Your task to perform on an android device: turn off smart reply in the gmail app Image 0: 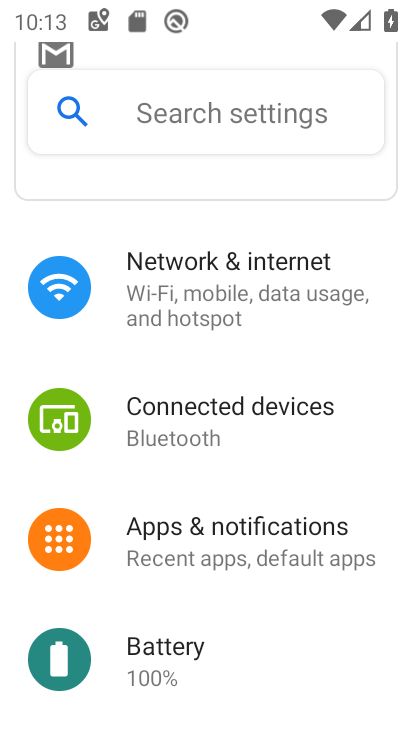
Step 0: press home button
Your task to perform on an android device: turn off smart reply in the gmail app Image 1: 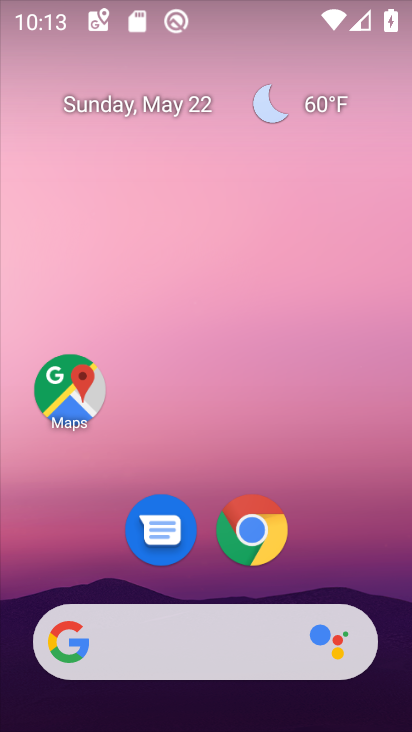
Step 1: drag from (399, 709) to (341, 189)
Your task to perform on an android device: turn off smart reply in the gmail app Image 2: 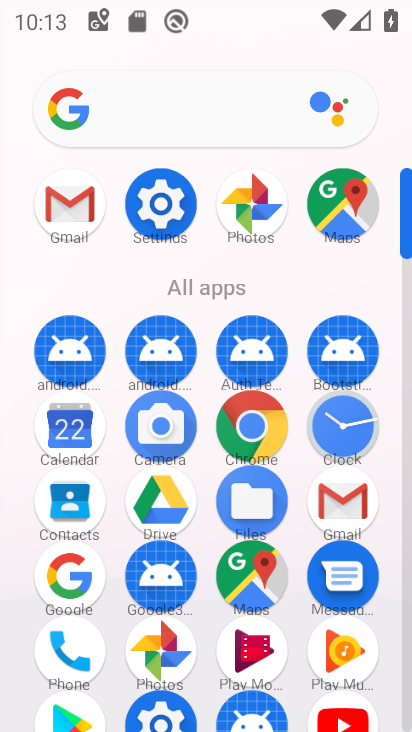
Step 2: click (346, 502)
Your task to perform on an android device: turn off smart reply in the gmail app Image 3: 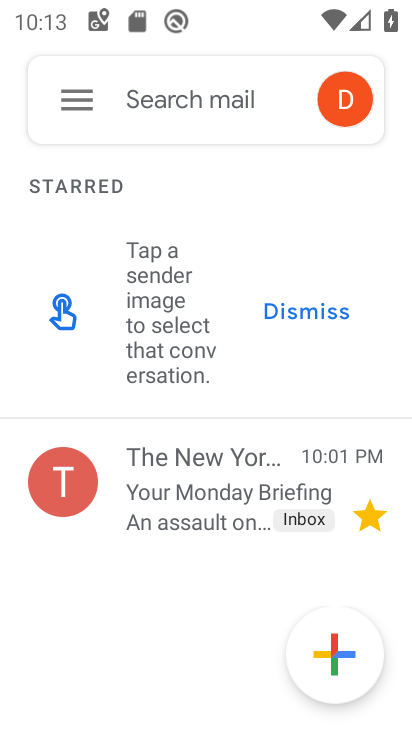
Step 3: click (77, 94)
Your task to perform on an android device: turn off smart reply in the gmail app Image 4: 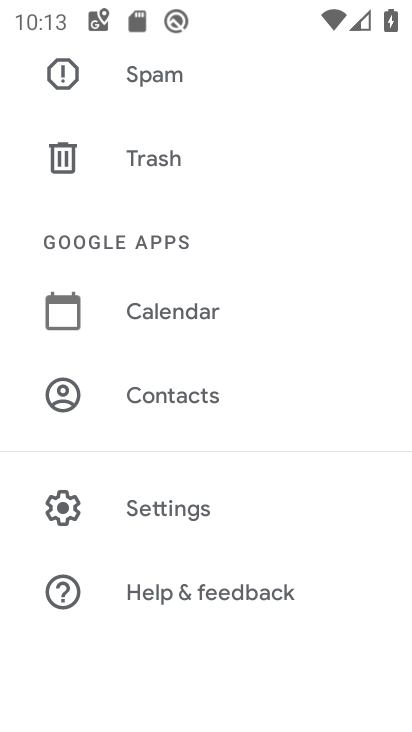
Step 4: drag from (353, 695) to (349, 328)
Your task to perform on an android device: turn off smart reply in the gmail app Image 5: 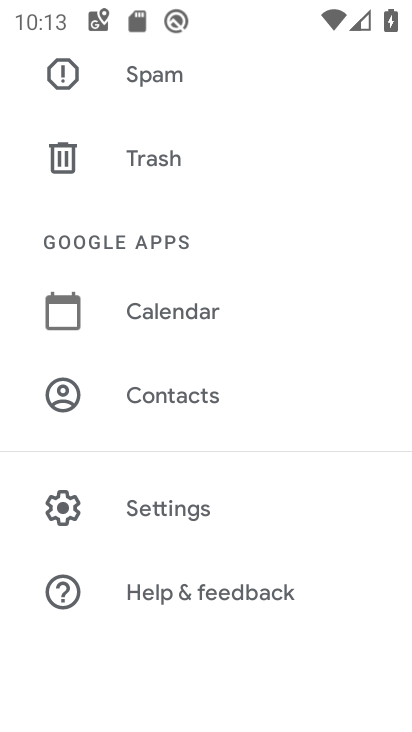
Step 5: click (127, 502)
Your task to perform on an android device: turn off smart reply in the gmail app Image 6: 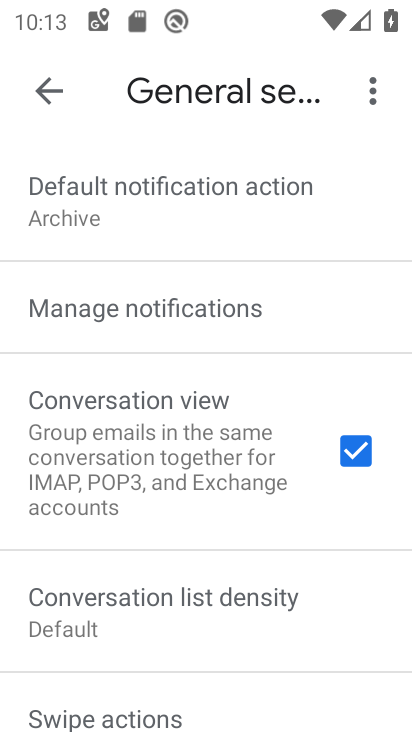
Step 6: click (43, 87)
Your task to perform on an android device: turn off smart reply in the gmail app Image 7: 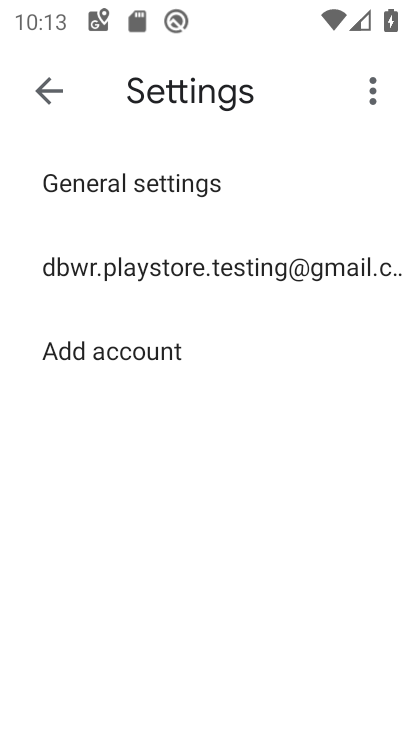
Step 7: click (139, 266)
Your task to perform on an android device: turn off smart reply in the gmail app Image 8: 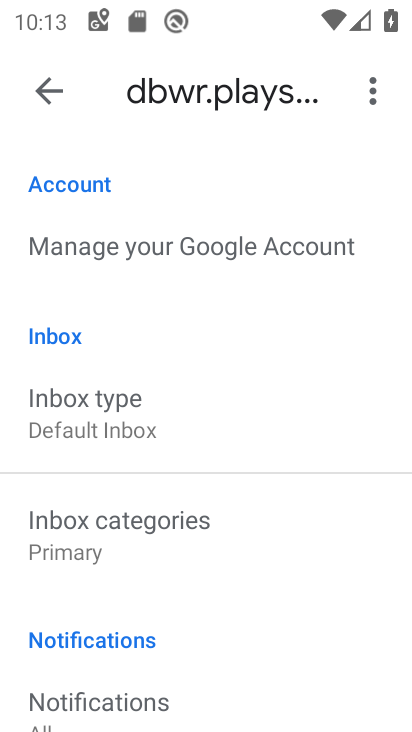
Step 8: drag from (306, 697) to (286, 333)
Your task to perform on an android device: turn off smart reply in the gmail app Image 9: 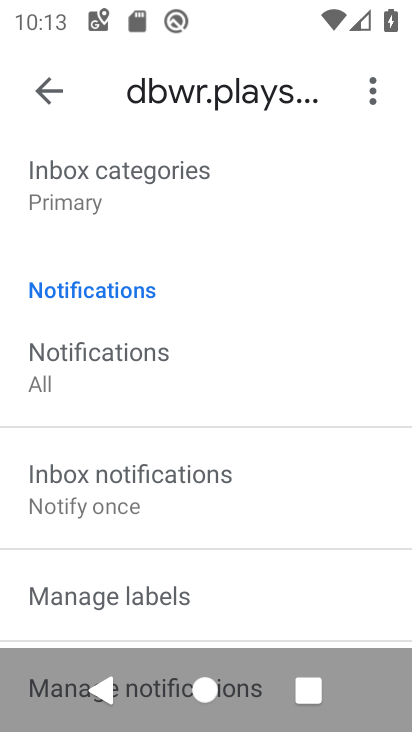
Step 9: drag from (283, 635) to (269, 292)
Your task to perform on an android device: turn off smart reply in the gmail app Image 10: 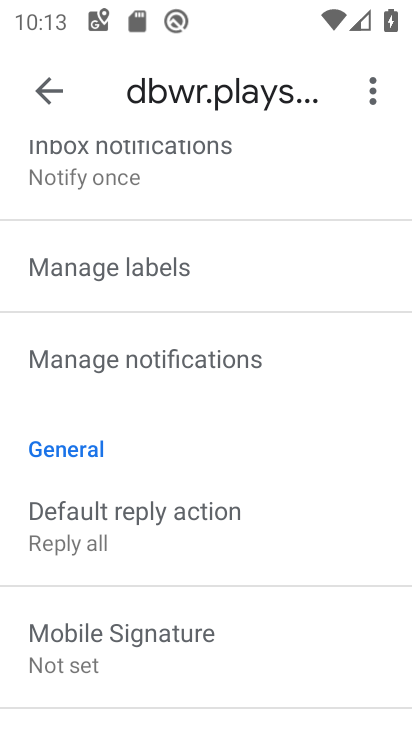
Step 10: drag from (309, 618) to (283, 283)
Your task to perform on an android device: turn off smart reply in the gmail app Image 11: 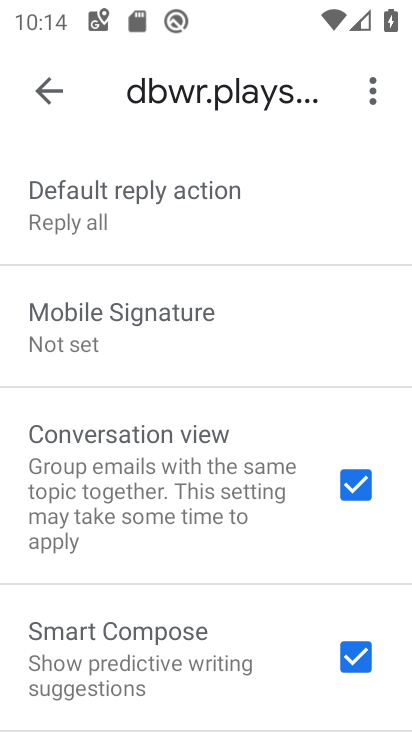
Step 11: drag from (289, 575) to (268, 344)
Your task to perform on an android device: turn off smart reply in the gmail app Image 12: 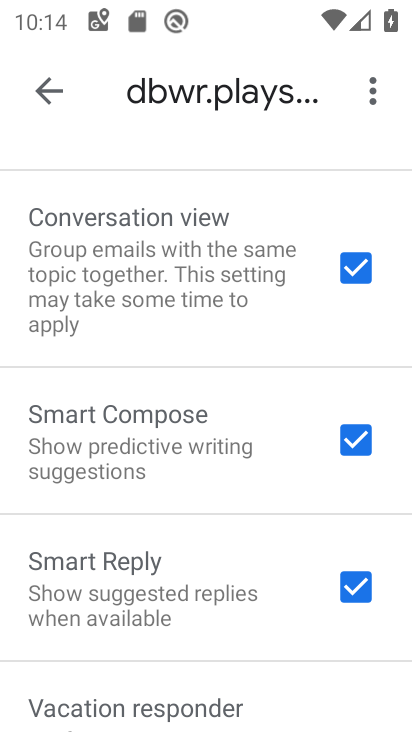
Step 12: click (347, 659)
Your task to perform on an android device: turn off smart reply in the gmail app Image 13: 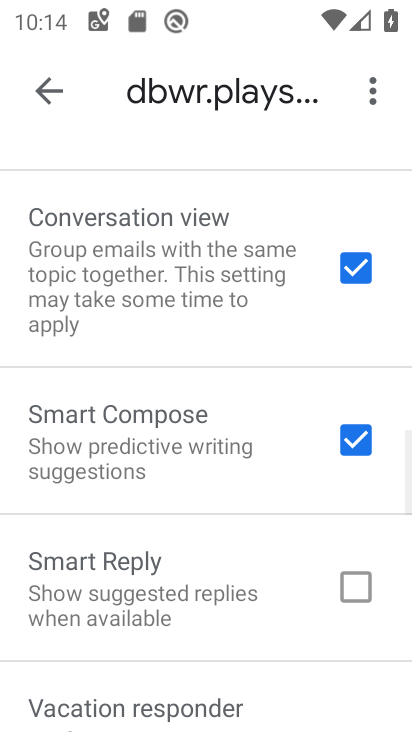
Step 13: task complete